Your task to perform on an android device: set the stopwatch Image 0: 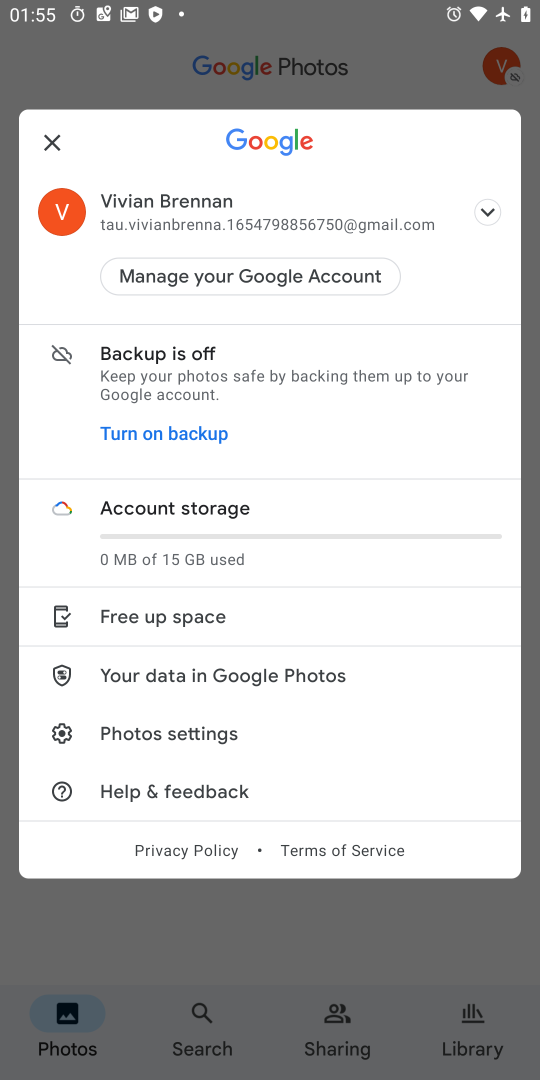
Step 0: press home button
Your task to perform on an android device: set the stopwatch Image 1: 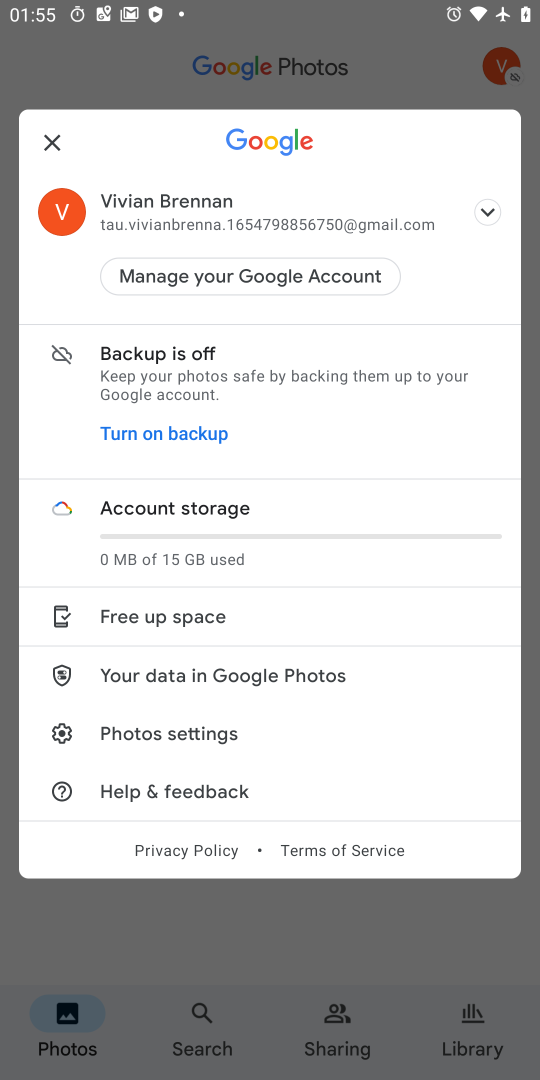
Step 1: press home button
Your task to perform on an android device: set the stopwatch Image 2: 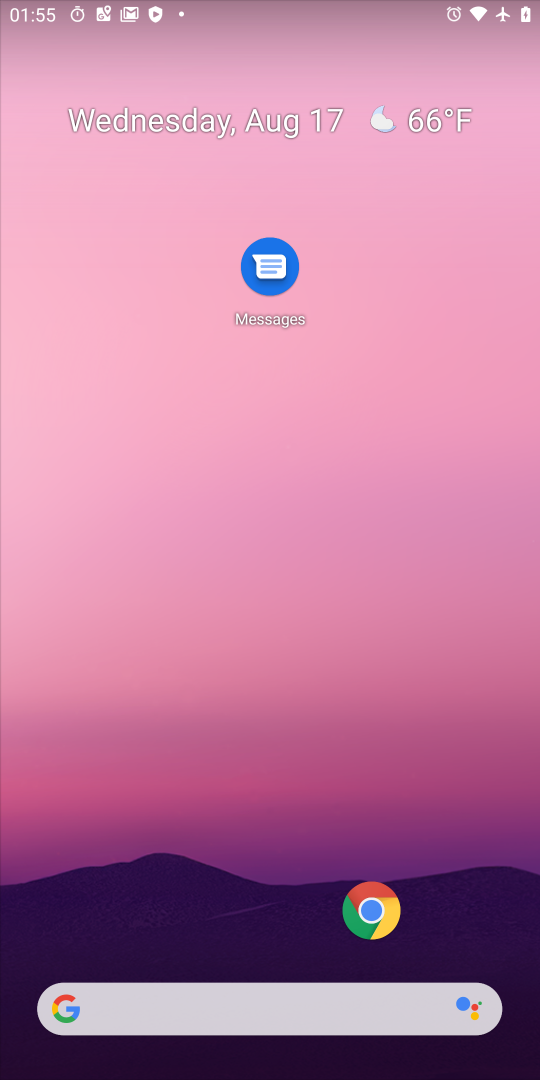
Step 2: drag from (244, 869) to (216, 1)
Your task to perform on an android device: set the stopwatch Image 3: 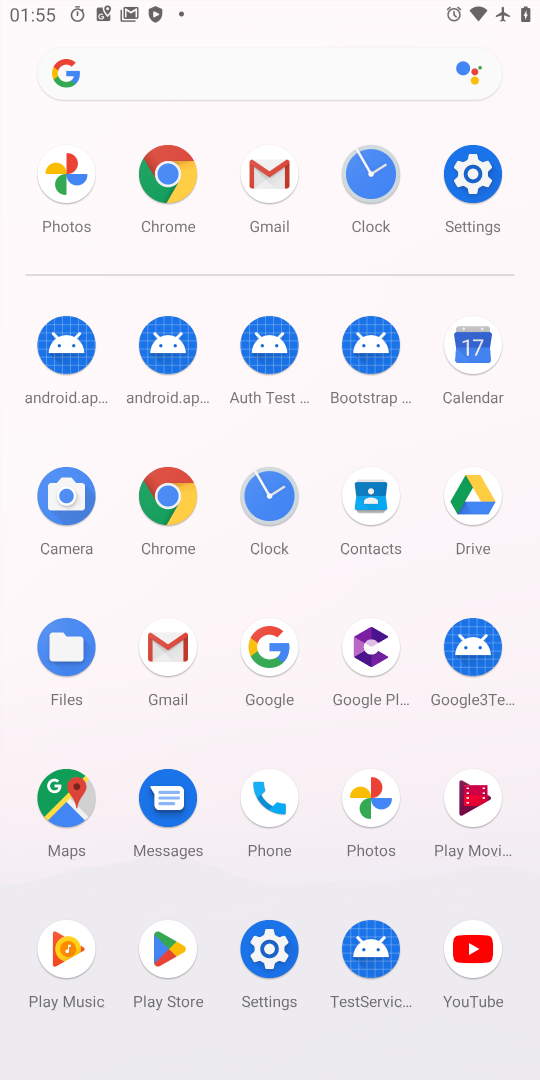
Step 3: click (265, 500)
Your task to perform on an android device: set the stopwatch Image 4: 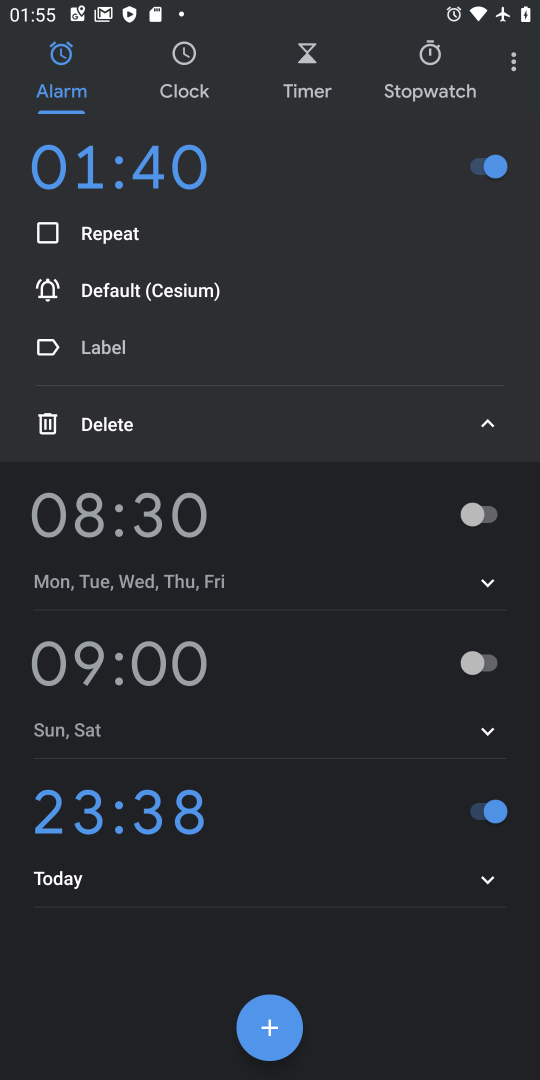
Step 4: click (413, 78)
Your task to perform on an android device: set the stopwatch Image 5: 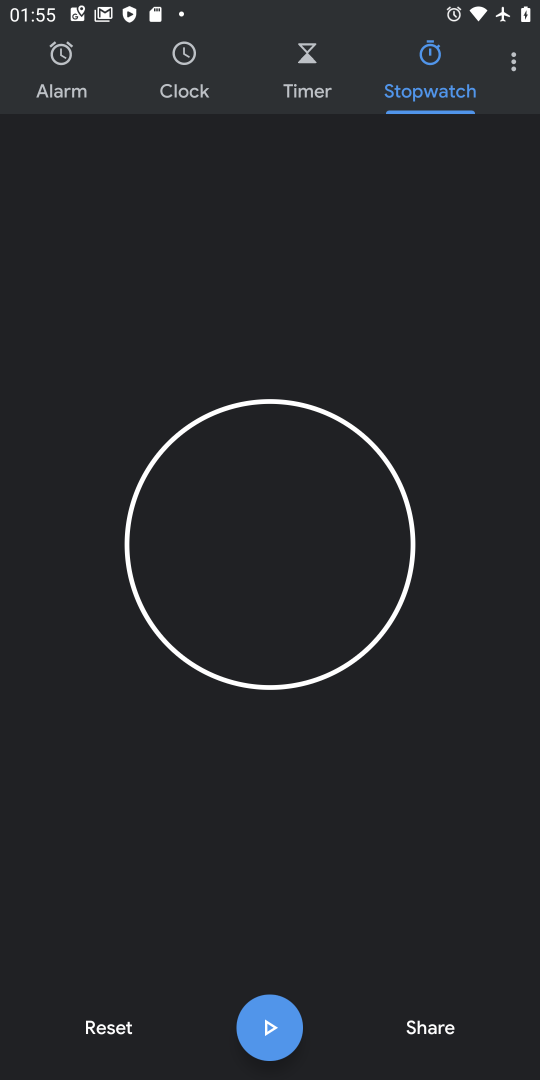
Step 5: task complete